Your task to perform on an android device: Go to Google maps Image 0: 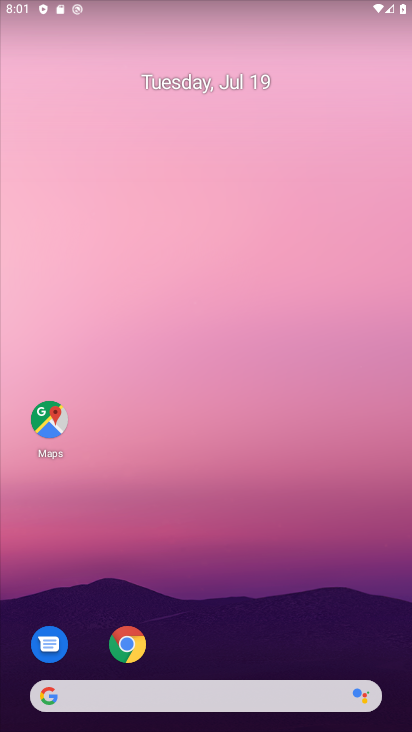
Step 0: click (45, 428)
Your task to perform on an android device: Go to Google maps Image 1: 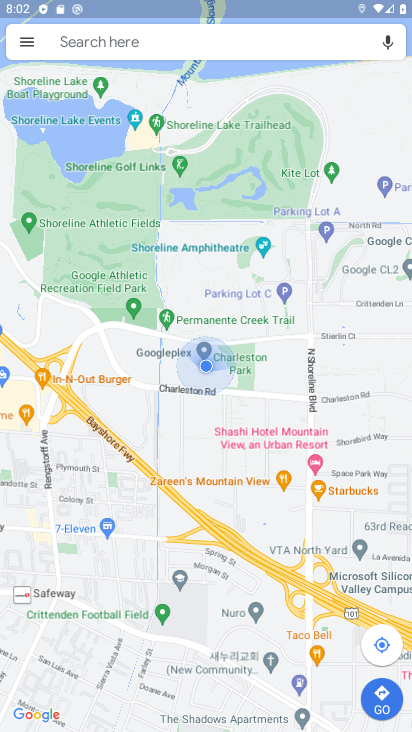
Step 1: task complete